Your task to perform on an android device: empty trash in the gmail app Image 0: 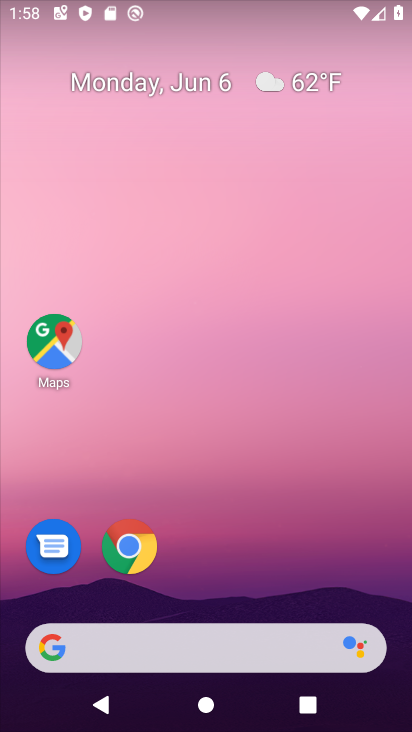
Step 0: drag from (234, 570) to (258, 223)
Your task to perform on an android device: empty trash in the gmail app Image 1: 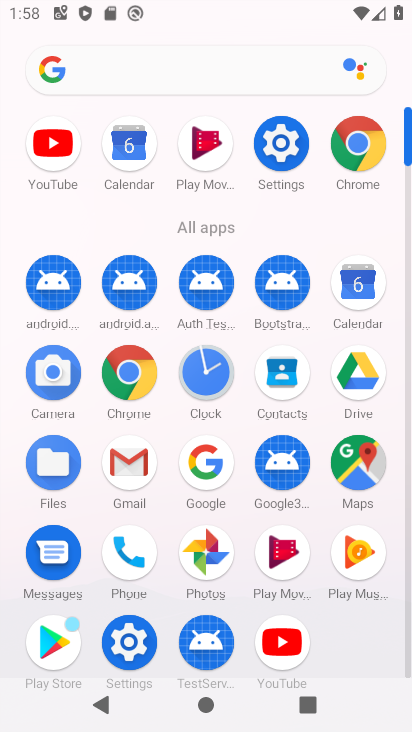
Step 1: click (129, 465)
Your task to perform on an android device: empty trash in the gmail app Image 2: 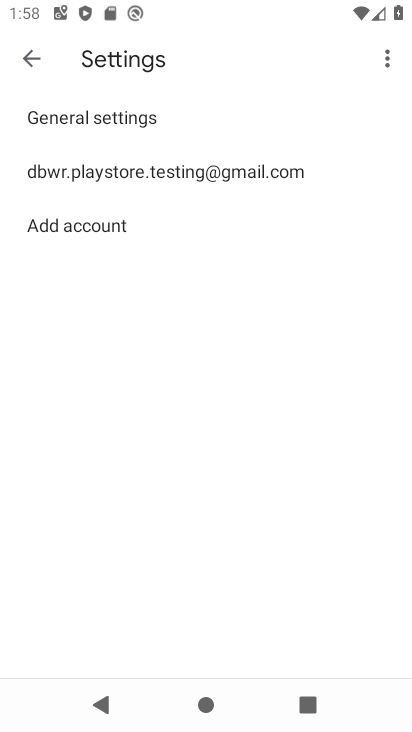
Step 2: click (36, 48)
Your task to perform on an android device: empty trash in the gmail app Image 3: 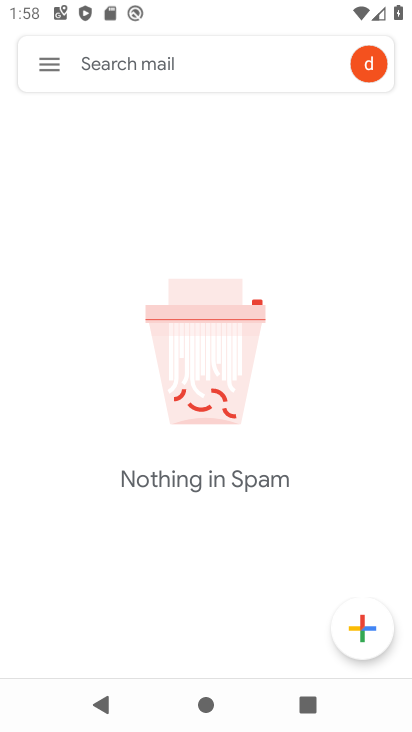
Step 3: click (42, 47)
Your task to perform on an android device: empty trash in the gmail app Image 4: 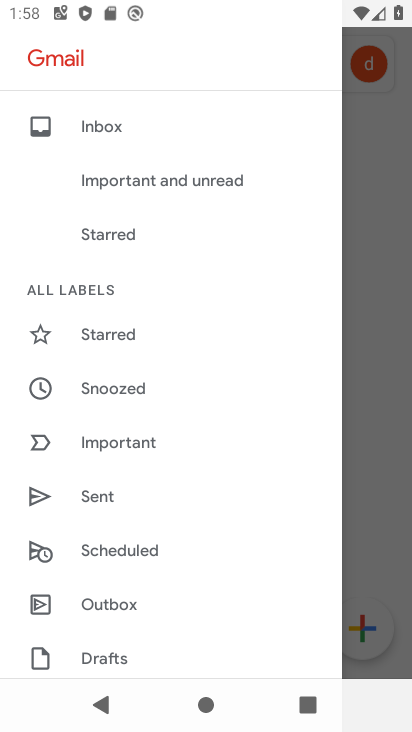
Step 4: drag from (134, 539) to (224, 136)
Your task to perform on an android device: empty trash in the gmail app Image 5: 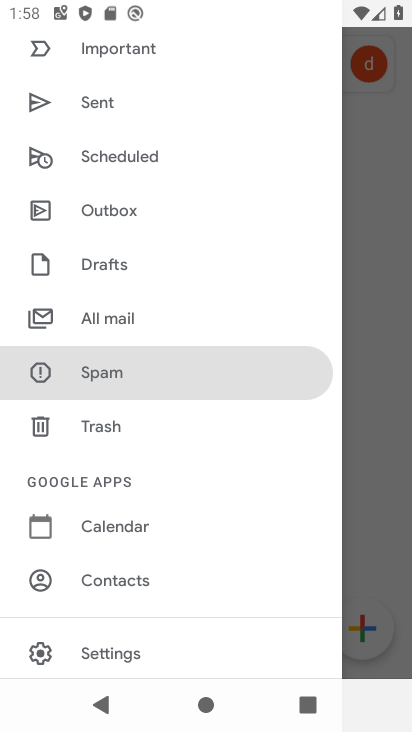
Step 5: click (105, 439)
Your task to perform on an android device: empty trash in the gmail app Image 6: 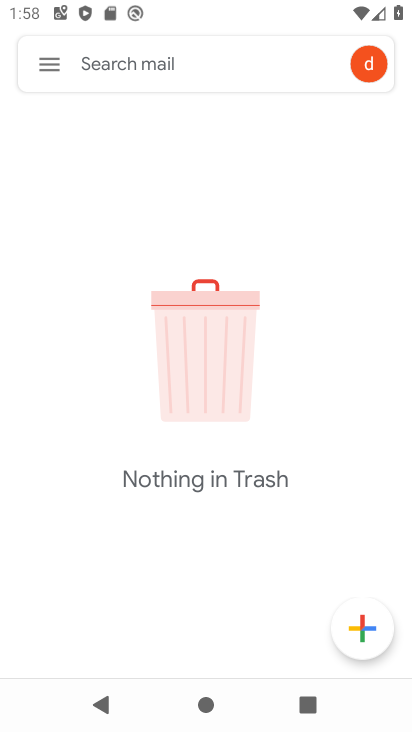
Step 6: task complete